Your task to perform on an android device: see creations saved in the google photos Image 0: 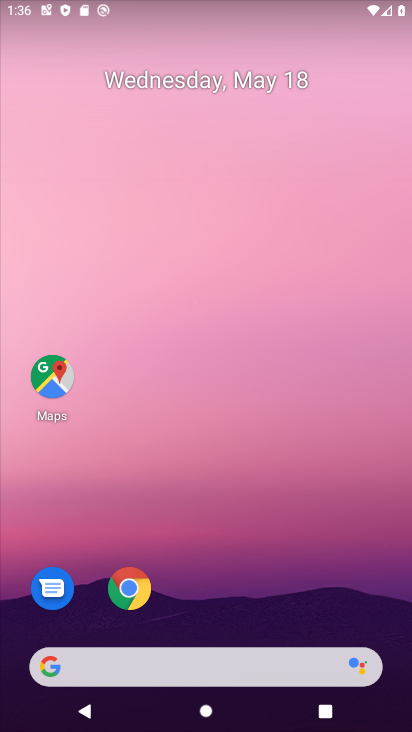
Step 0: drag from (294, 619) to (320, 89)
Your task to perform on an android device: see creations saved in the google photos Image 1: 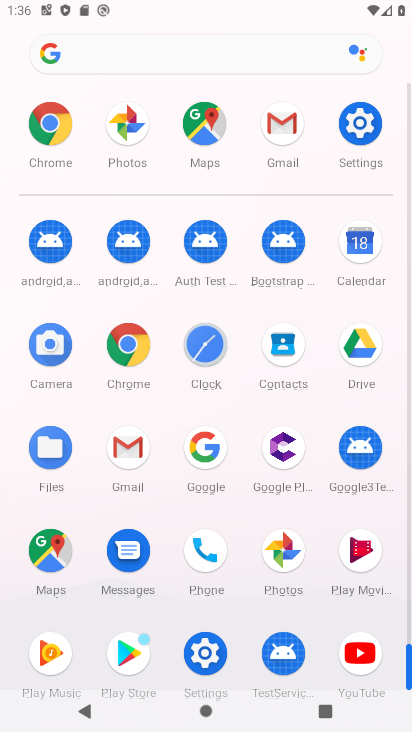
Step 1: click (289, 561)
Your task to perform on an android device: see creations saved in the google photos Image 2: 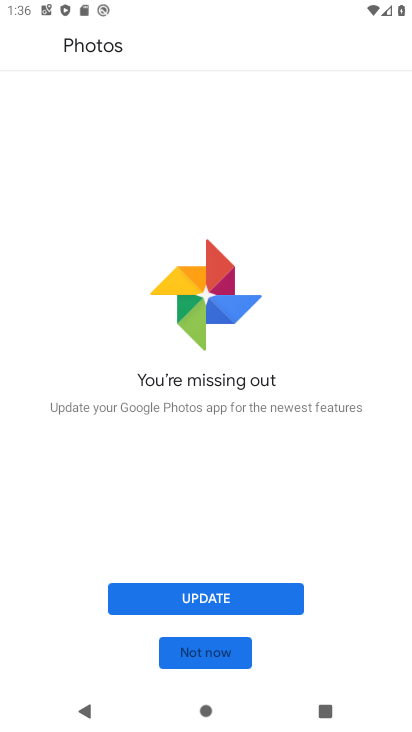
Step 2: click (295, 598)
Your task to perform on an android device: see creations saved in the google photos Image 3: 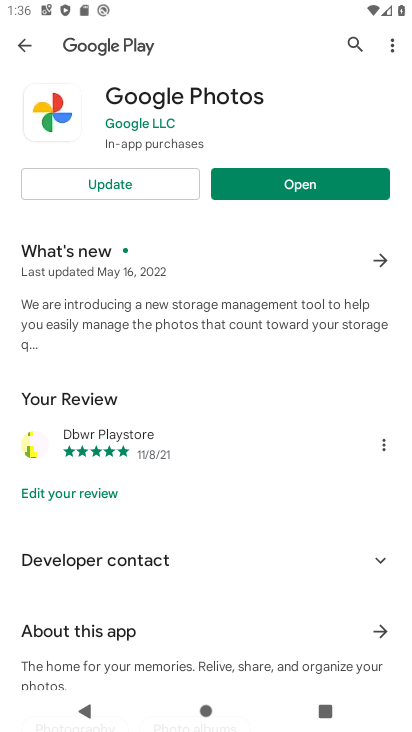
Step 3: click (130, 188)
Your task to perform on an android device: see creations saved in the google photos Image 4: 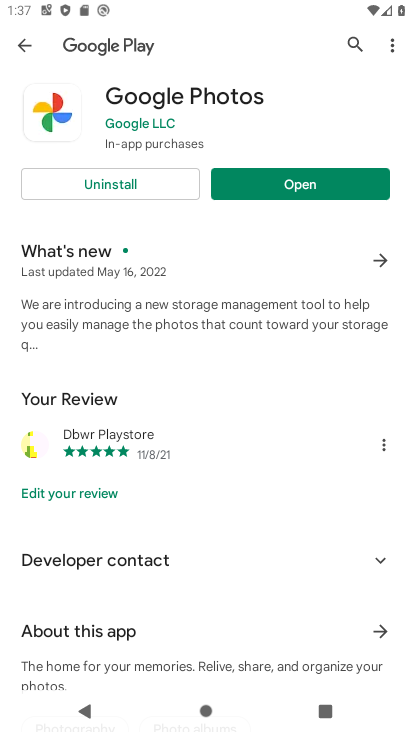
Step 4: click (330, 189)
Your task to perform on an android device: see creations saved in the google photos Image 5: 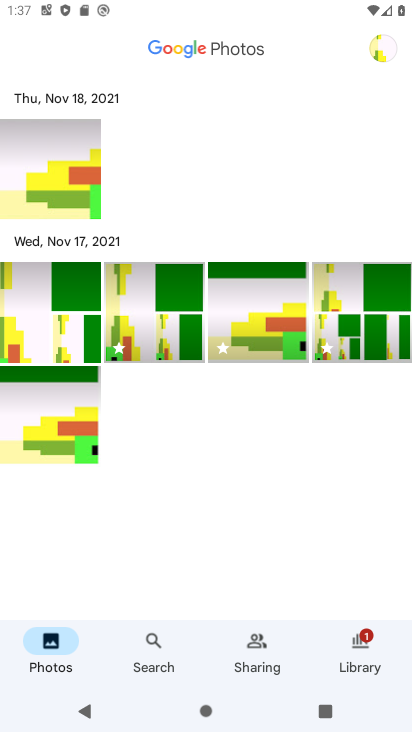
Step 5: click (156, 654)
Your task to perform on an android device: see creations saved in the google photos Image 6: 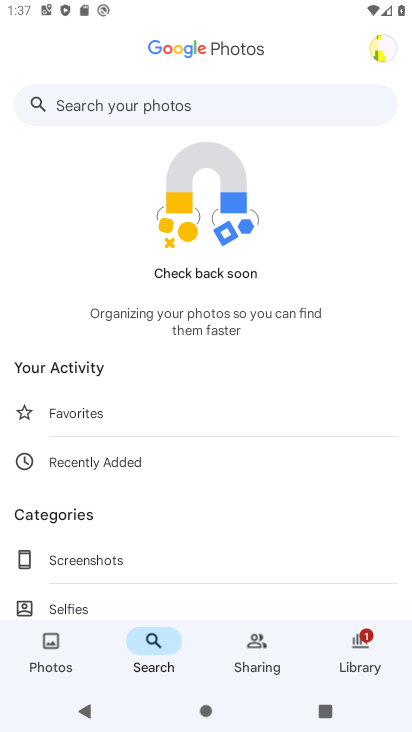
Step 6: drag from (177, 529) to (198, 393)
Your task to perform on an android device: see creations saved in the google photos Image 7: 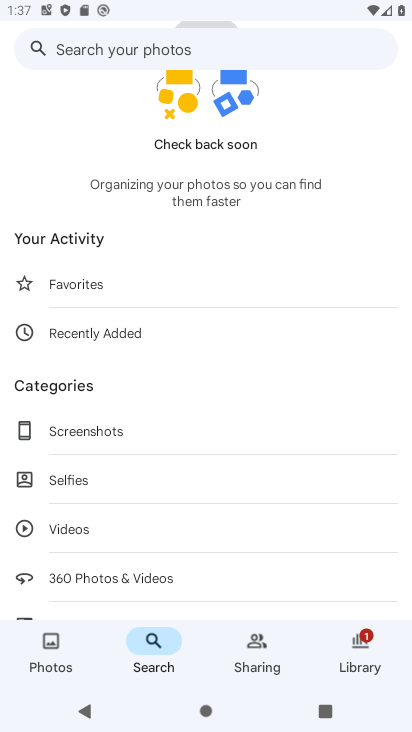
Step 7: drag from (196, 547) to (200, 434)
Your task to perform on an android device: see creations saved in the google photos Image 8: 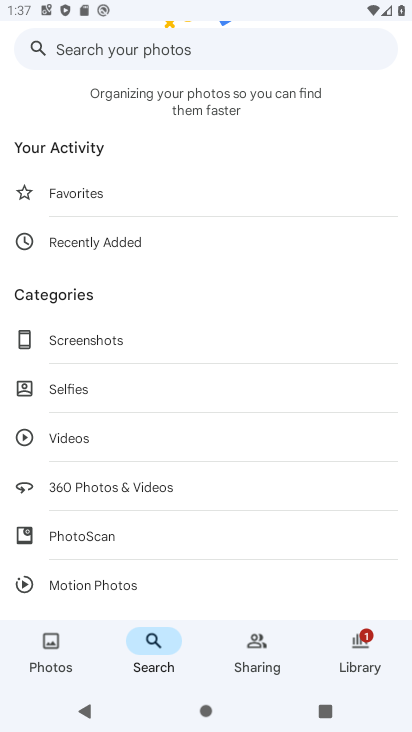
Step 8: drag from (182, 555) to (199, 428)
Your task to perform on an android device: see creations saved in the google photos Image 9: 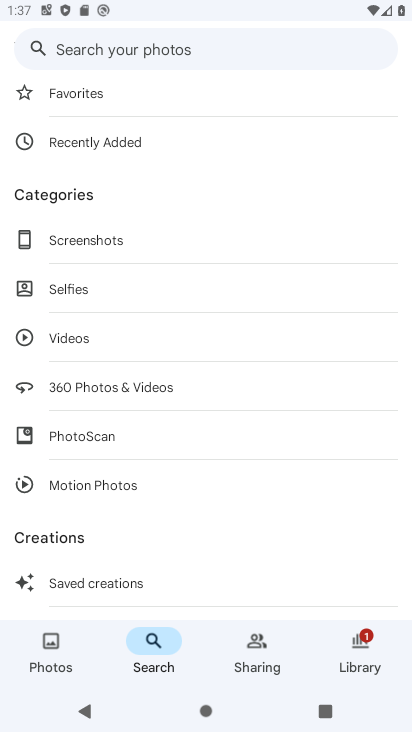
Step 9: drag from (171, 539) to (185, 401)
Your task to perform on an android device: see creations saved in the google photos Image 10: 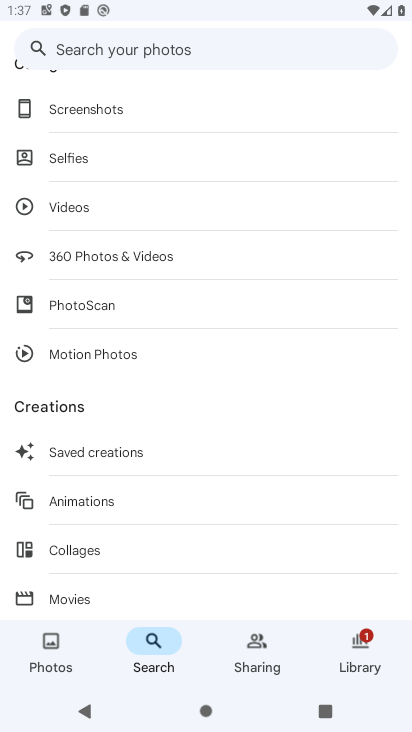
Step 10: drag from (178, 565) to (191, 414)
Your task to perform on an android device: see creations saved in the google photos Image 11: 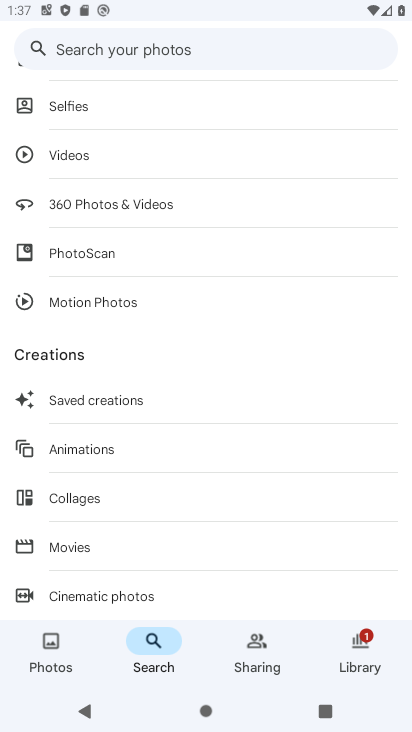
Step 11: click (131, 397)
Your task to perform on an android device: see creations saved in the google photos Image 12: 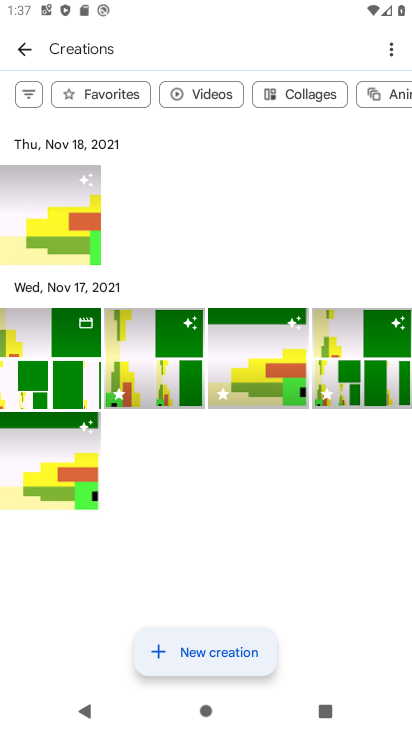
Step 12: task complete